Your task to perform on an android device: open a bookmark in the chrome app Image 0: 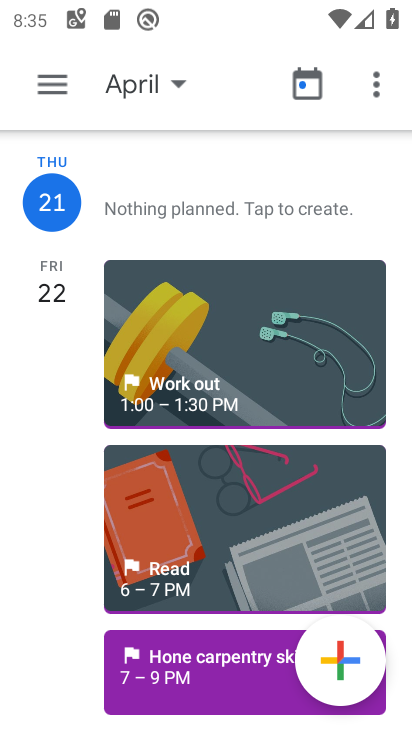
Step 0: press home button
Your task to perform on an android device: open a bookmark in the chrome app Image 1: 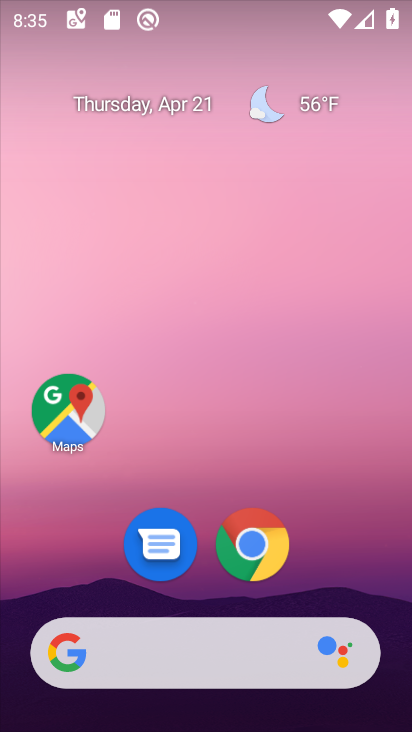
Step 1: click (250, 544)
Your task to perform on an android device: open a bookmark in the chrome app Image 2: 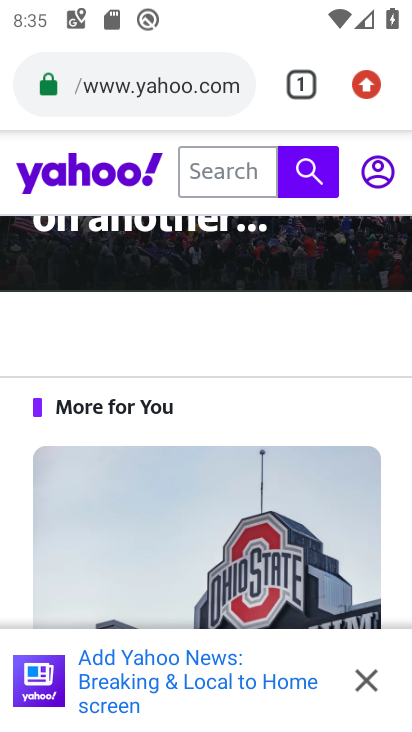
Step 2: click (367, 92)
Your task to perform on an android device: open a bookmark in the chrome app Image 3: 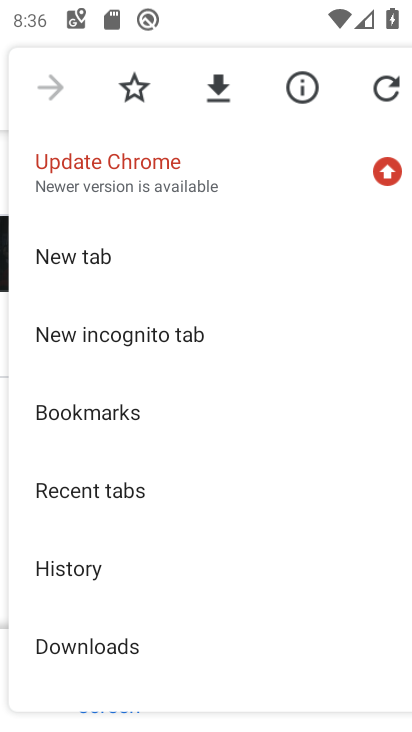
Step 3: drag from (157, 633) to (138, 298)
Your task to perform on an android device: open a bookmark in the chrome app Image 4: 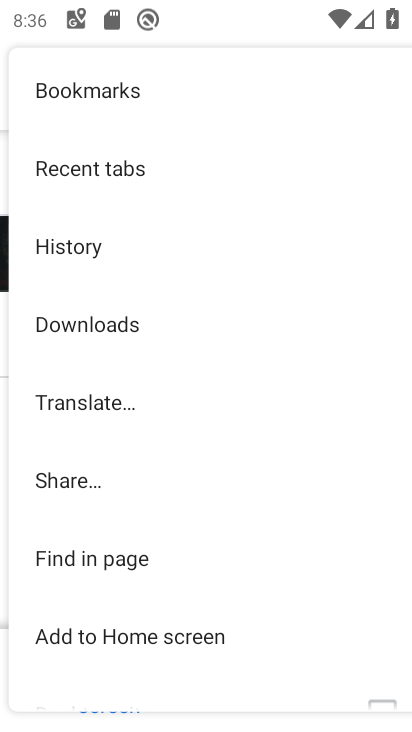
Step 4: click (94, 90)
Your task to perform on an android device: open a bookmark in the chrome app Image 5: 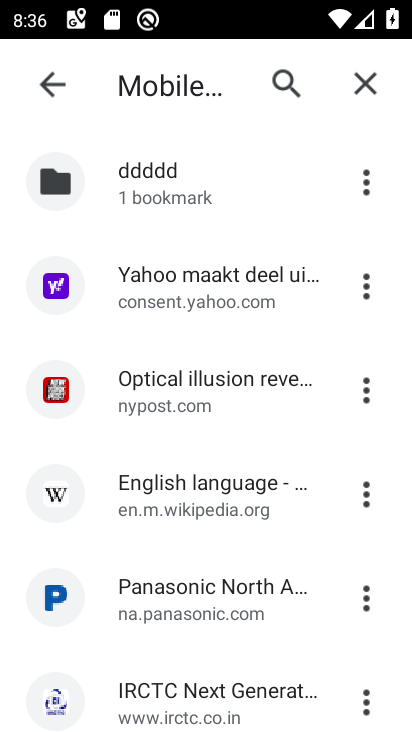
Step 5: click (165, 385)
Your task to perform on an android device: open a bookmark in the chrome app Image 6: 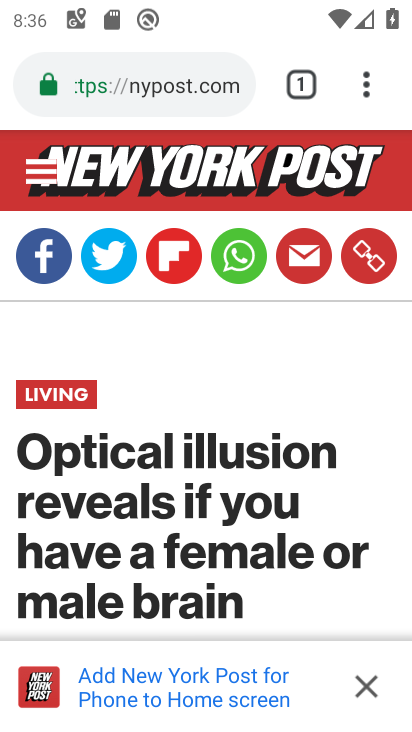
Step 6: task complete